Your task to perform on an android device: add a contact Image 0: 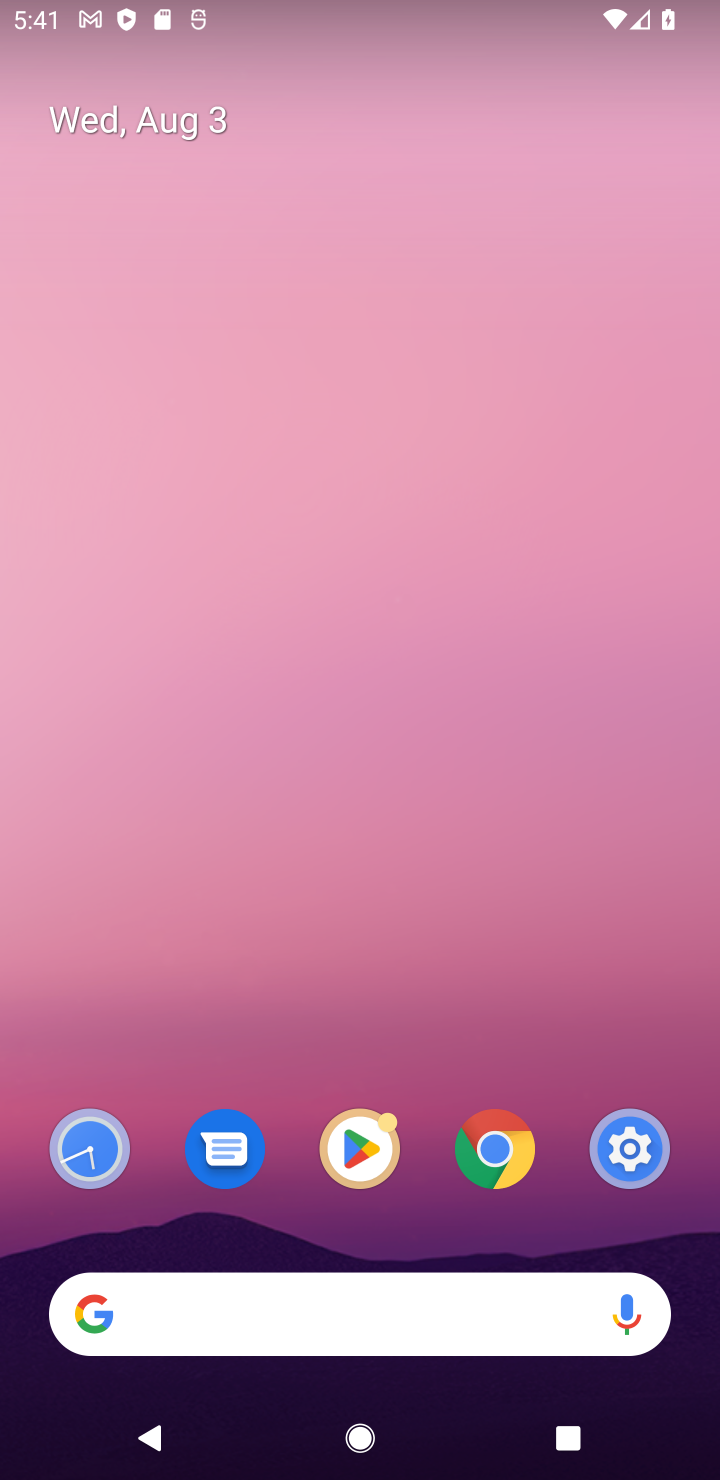
Step 0: drag from (329, 1260) to (322, 76)
Your task to perform on an android device: add a contact Image 1: 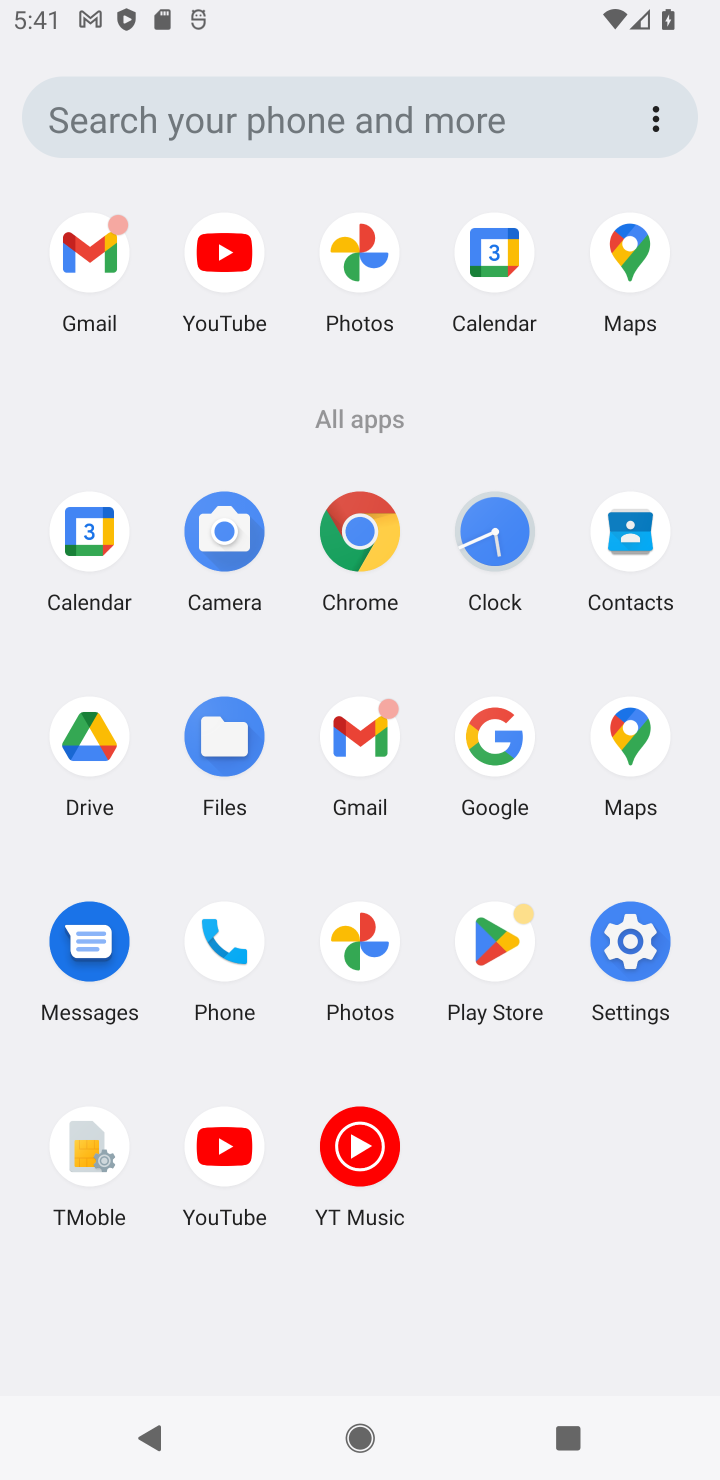
Step 1: click (616, 546)
Your task to perform on an android device: add a contact Image 2: 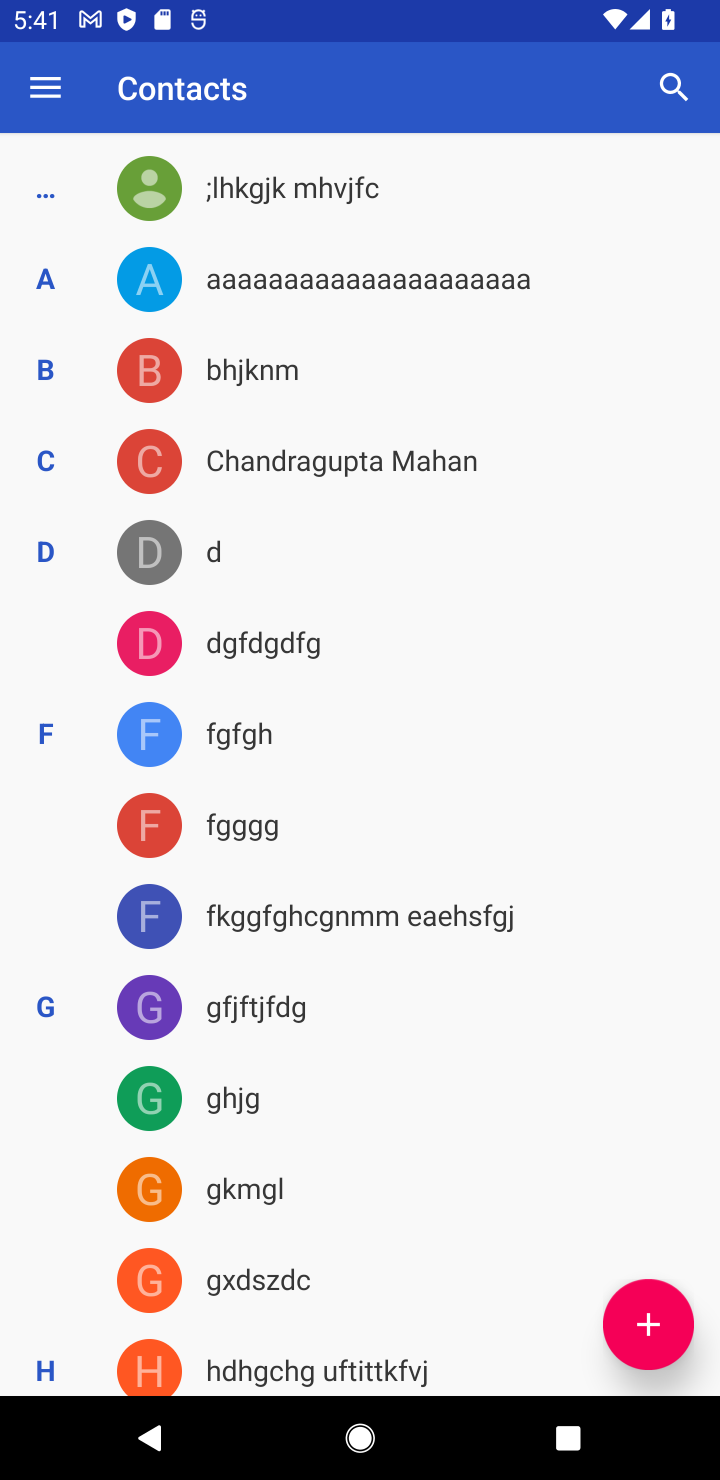
Step 2: click (639, 1336)
Your task to perform on an android device: add a contact Image 3: 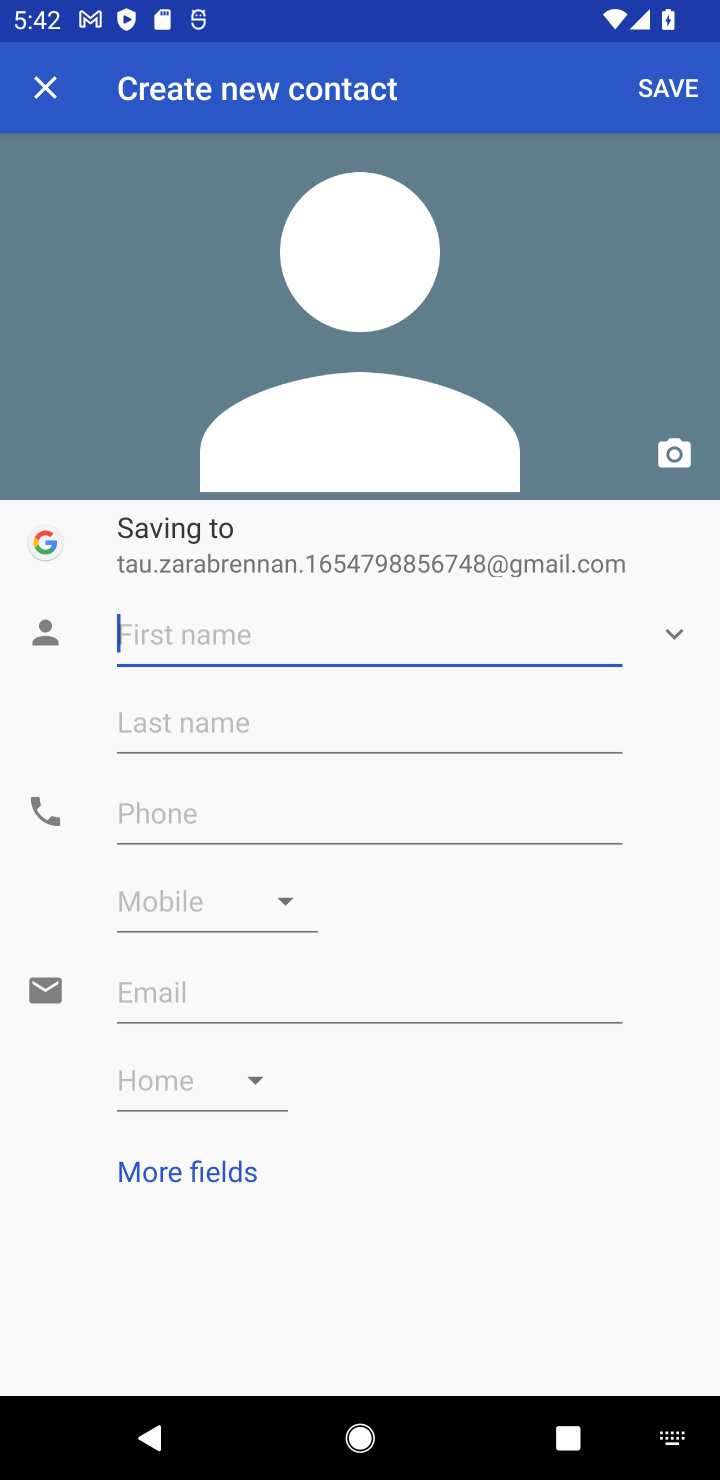
Step 3: type "dsfsdcc"
Your task to perform on an android device: add a contact Image 4: 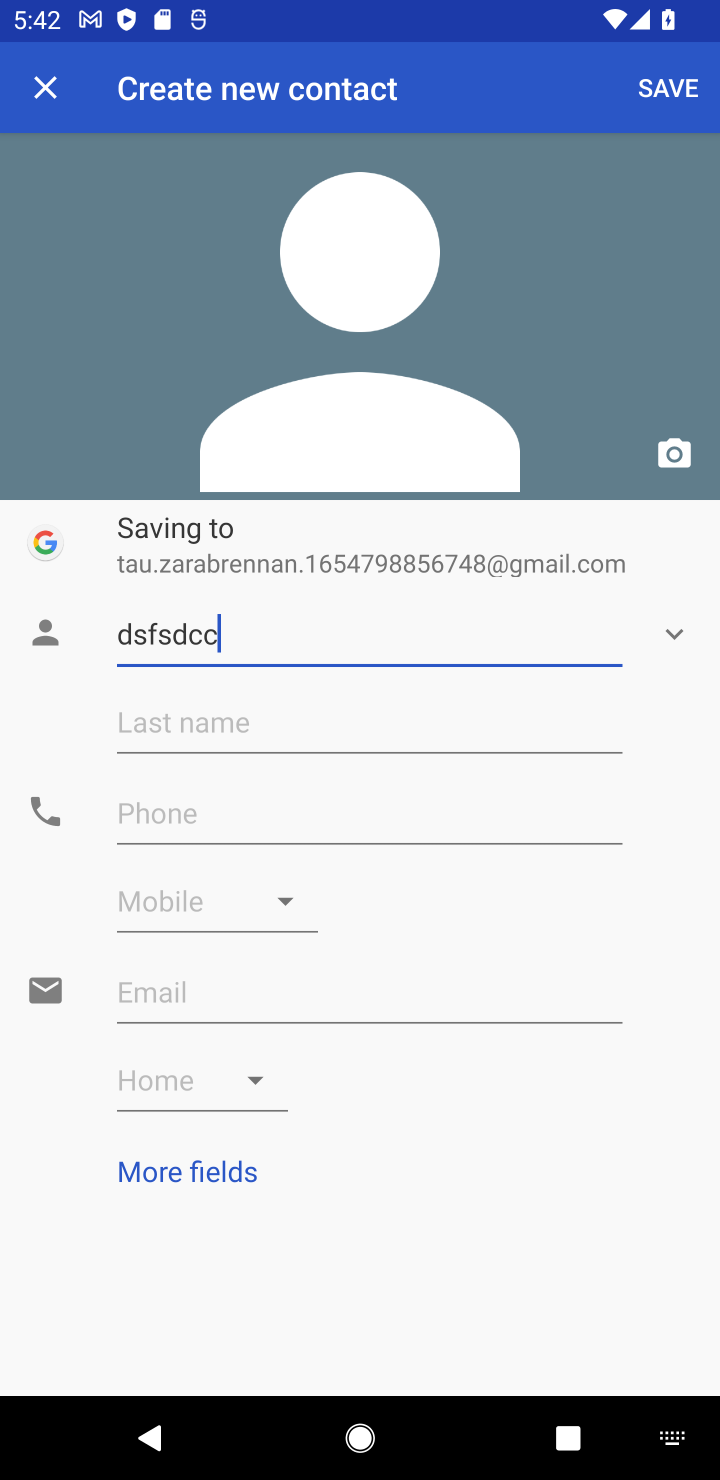
Step 4: click (303, 816)
Your task to perform on an android device: add a contact Image 5: 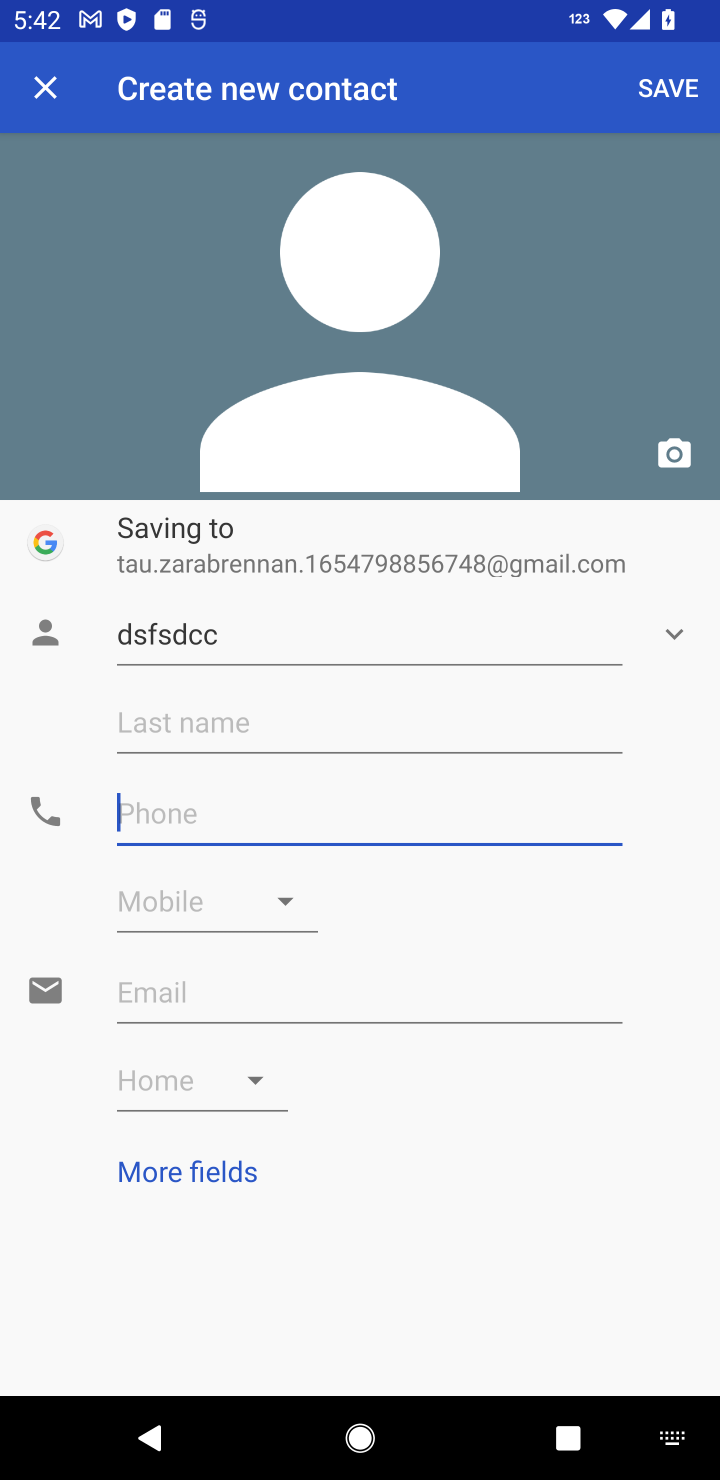
Step 5: type "38279232"
Your task to perform on an android device: add a contact Image 6: 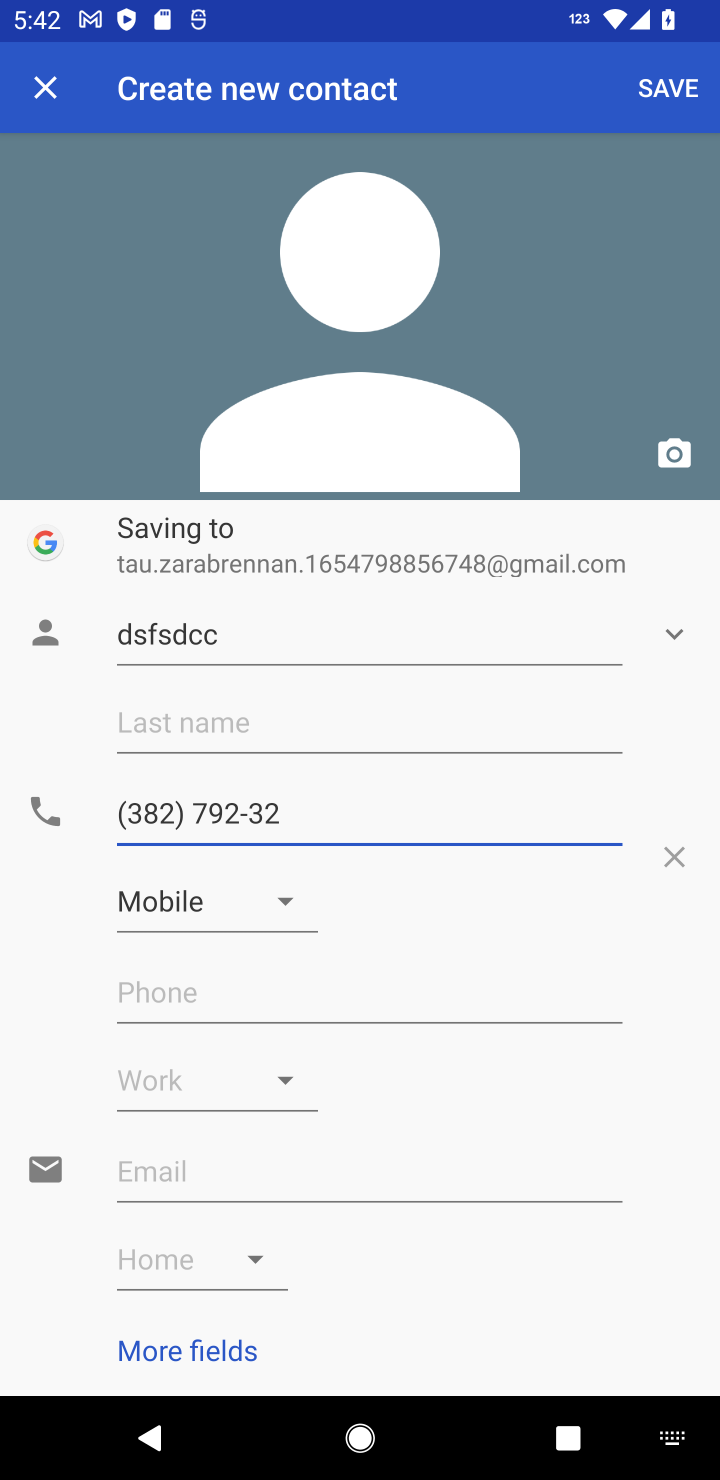
Step 6: click (663, 83)
Your task to perform on an android device: add a contact Image 7: 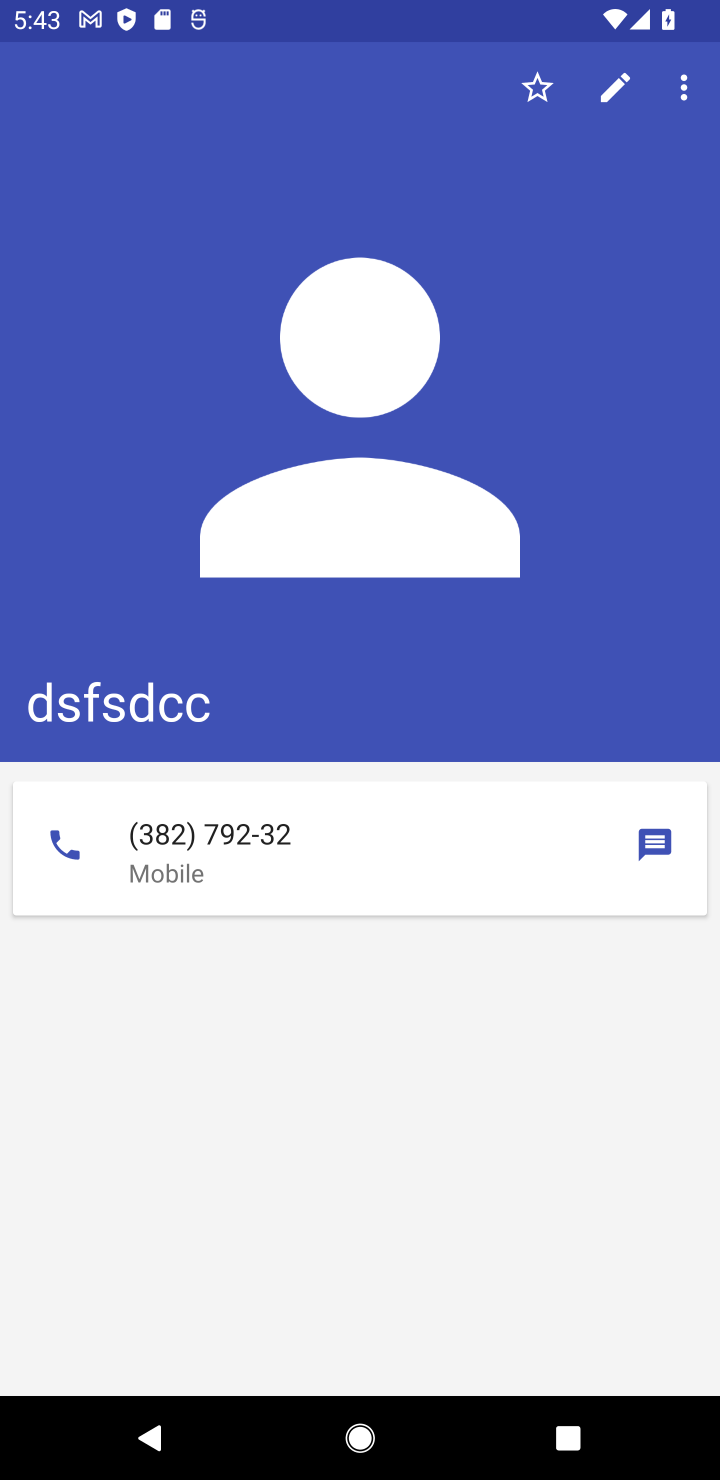
Step 7: task complete